Your task to perform on an android device: Open maps Image 0: 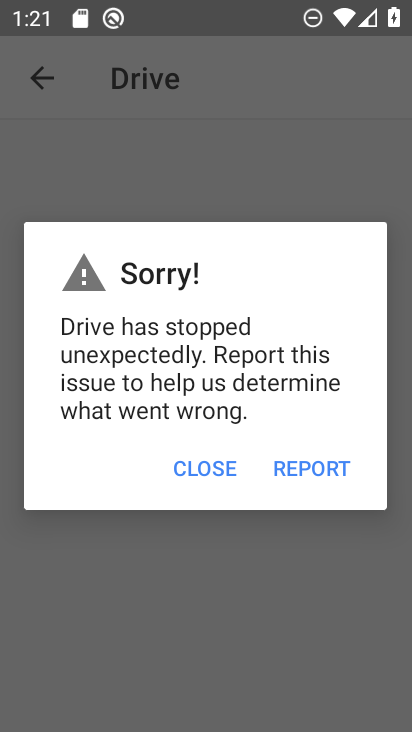
Step 0: press home button
Your task to perform on an android device: Open maps Image 1: 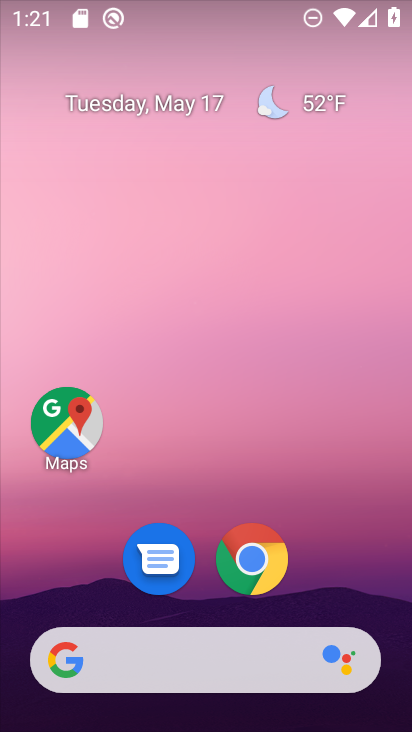
Step 1: click (62, 425)
Your task to perform on an android device: Open maps Image 2: 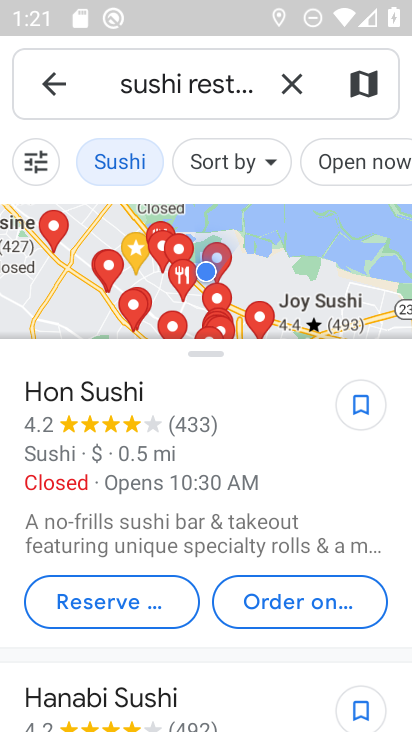
Step 2: click (298, 78)
Your task to perform on an android device: Open maps Image 3: 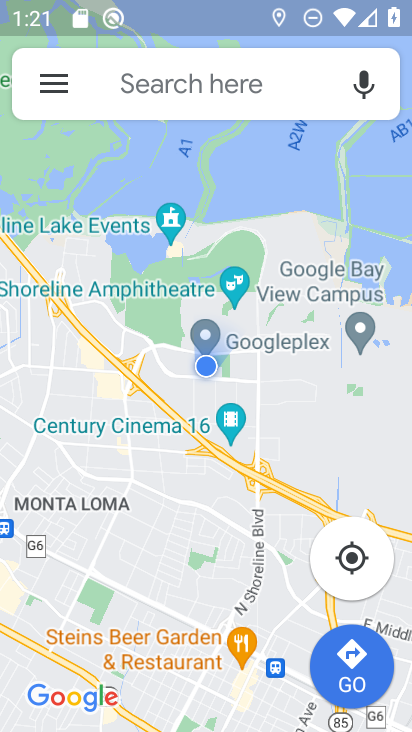
Step 3: task complete